Your task to perform on an android device: Add "panasonic triple a" to the cart on newegg.com, then select checkout. Image 0: 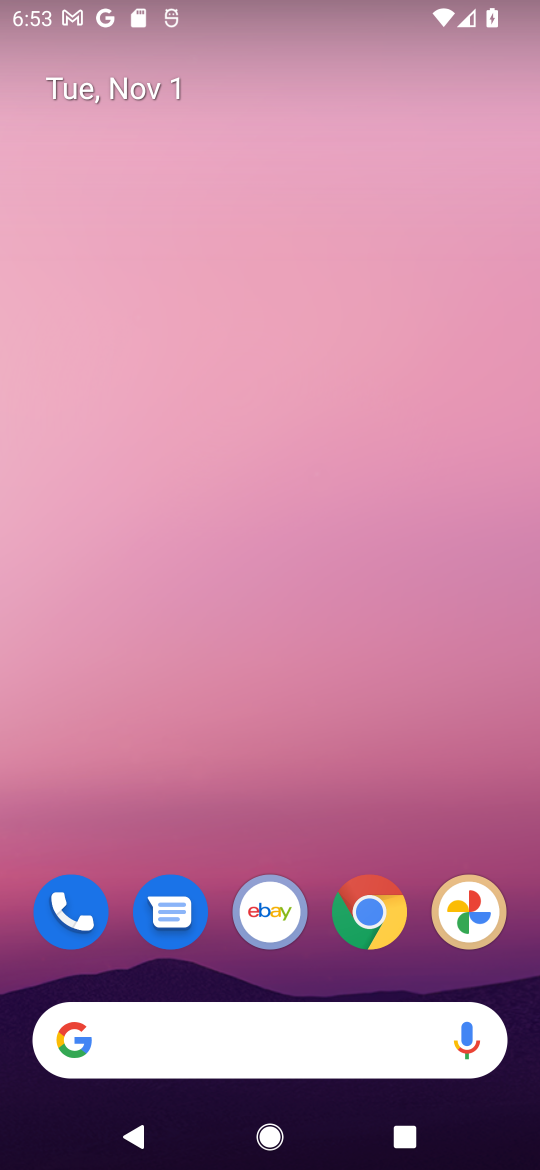
Step 0: click (68, 1040)
Your task to perform on an android device: Add "panasonic triple a" to the cart on newegg.com, then select checkout. Image 1: 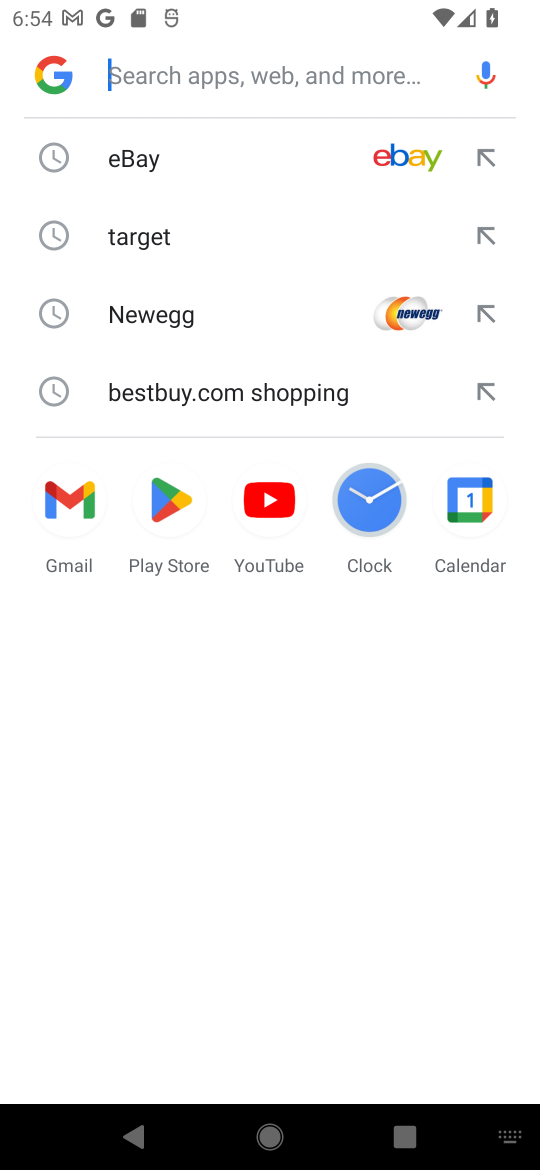
Step 1: click (169, 320)
Your task to perform on an android device: Add "panasonic triple a" to the cart on newegg.com, then select checkout. Image 2: 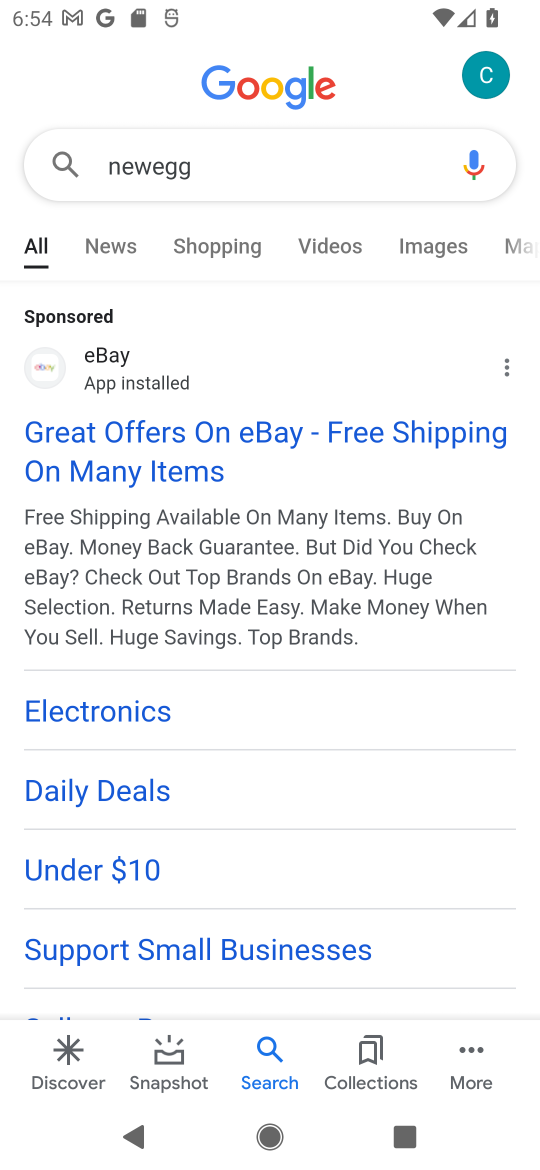
Step 2: click (165, 436)
Your task to perform on an android device: Add "panasonic triple a" to the cart on newegg.com, then select checkout. Image 3: 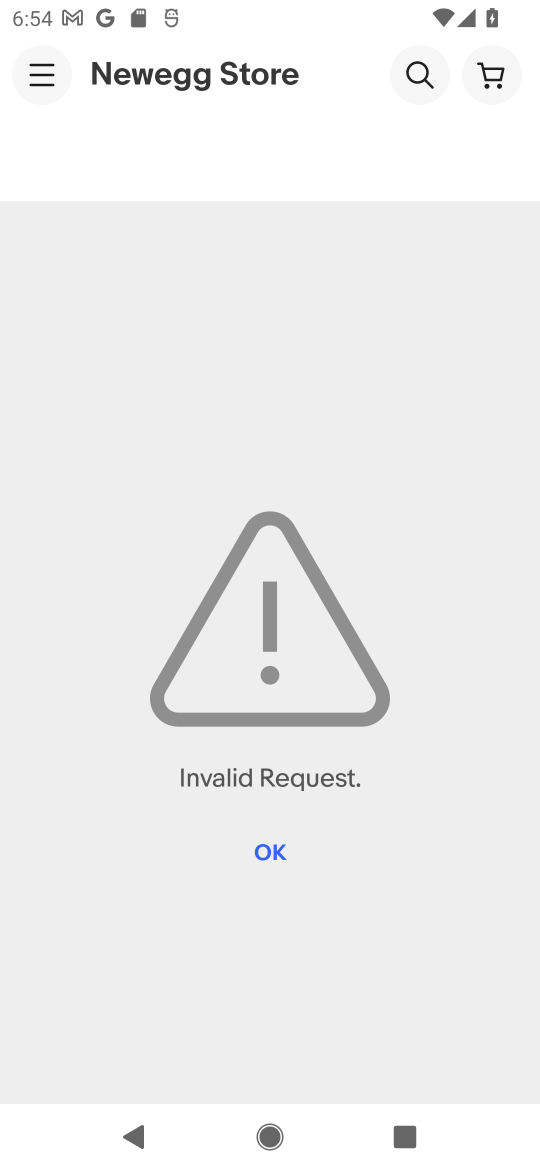
Step 3: task complete